Your task to perform on an android device: Open Wikipedia Image 0: 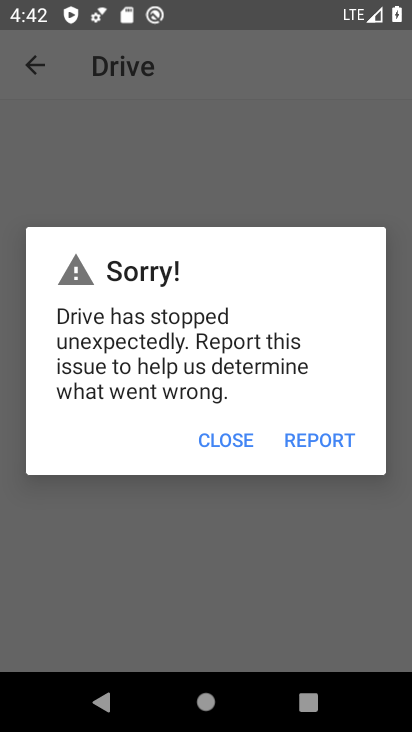
Step 0: press home button
Your task to perform on an android device: Open Wikipedia Image 1: 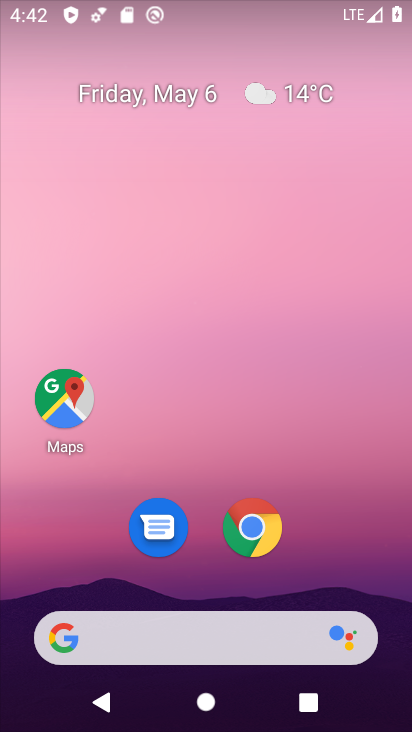
Step 1: click (251, 525)
Your task to perform on an android device: Open Wikipedia Image 2: 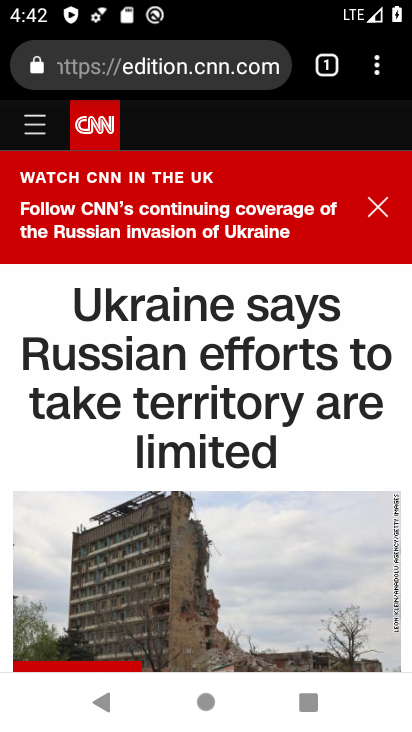
Step 2: click (378, 75)
Your task to perform on an android device: Open Wikipedia Image 3: 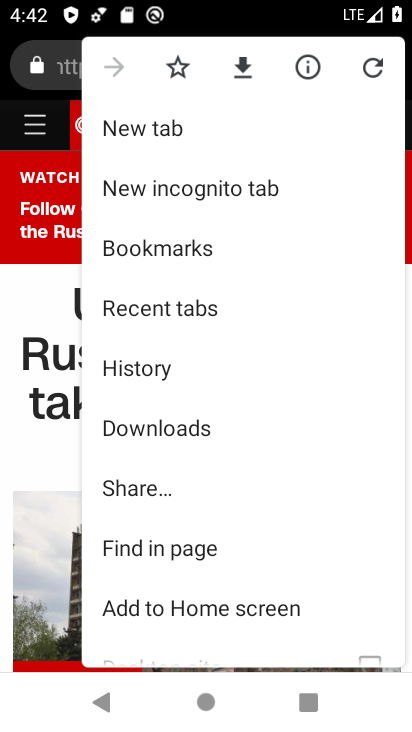
Step 3: click (167, 126)
Your task to perform on an android device: Open Wikipedia Image 4: 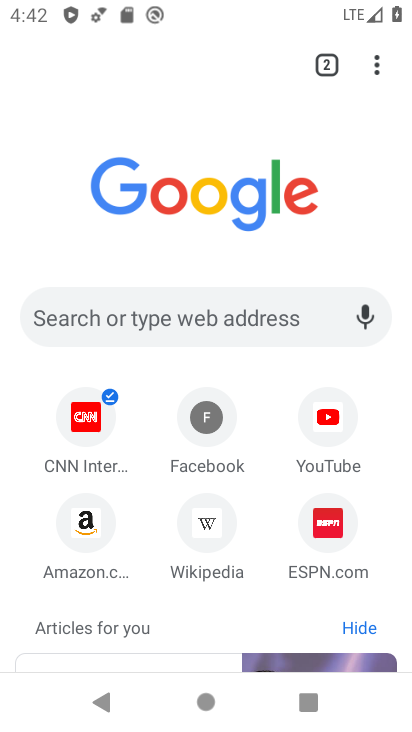
Step 4: click (192, 543)
Your task to perform on an android device: Open Wikipedia Image 5: 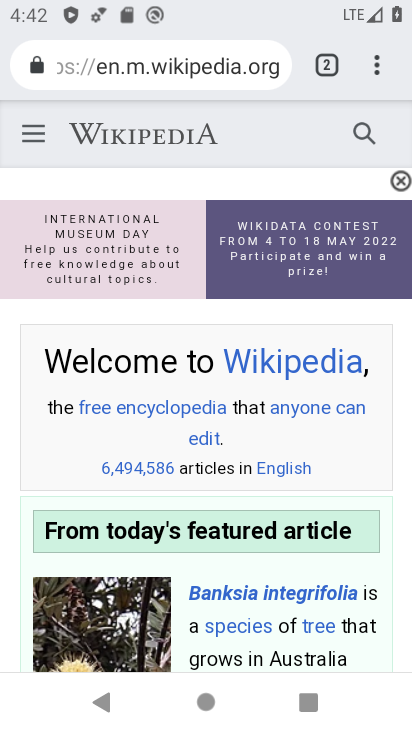
Step 5: task complete